Your task to perform on an android device: Go to Amazon Image 0: 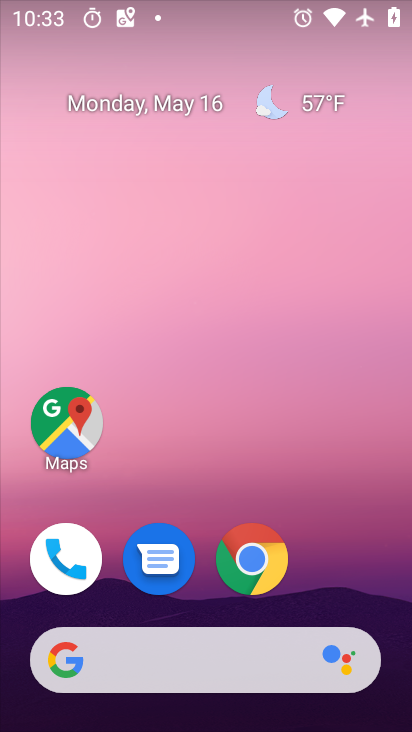
Step 0: press home button
Your task to perform on an android device: Go to Amazon Image 1: 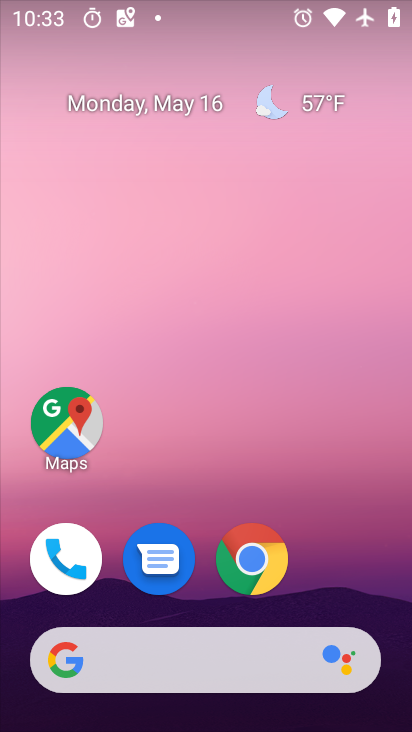
Step 1: drag from (354, 507) to (295, 80)
Your task to perform on an android device: Go to Amazon Image 2: 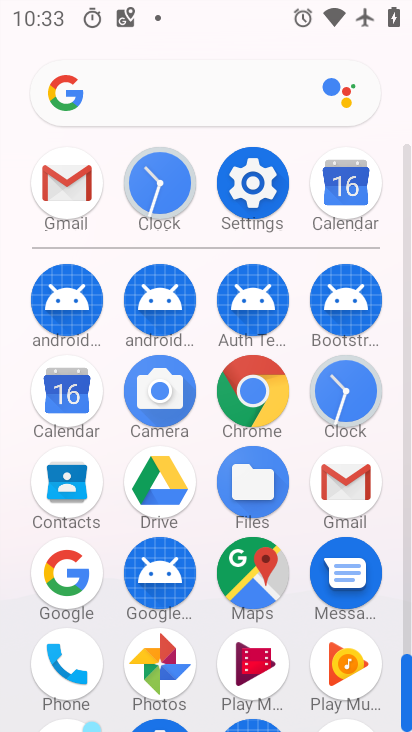
Step 2: click (267, 383)
Your task to perform on an android device: Go to Amazon Image 3: 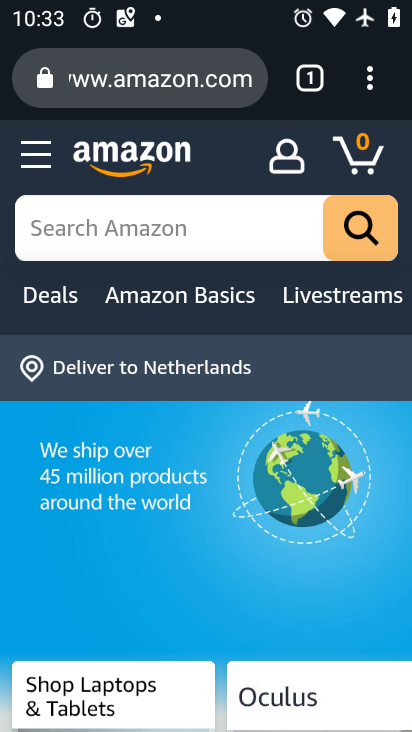
Step 3: task complete